Your task to perform on an android device: clear history in the chrome app Image 0: 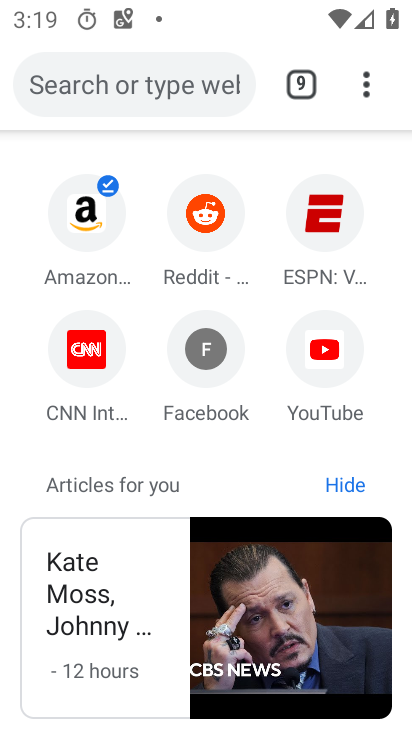
Step 0: click (367, 95)
Your task to perform on an android device: clear history in the chrome app Image 1: 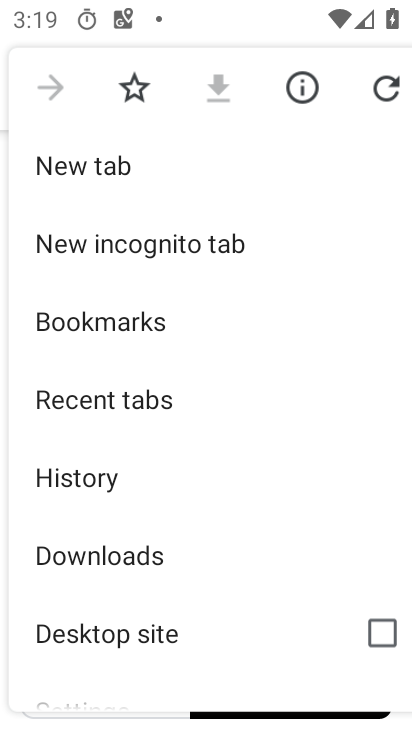
Step 1: click (52, 481)
Your task to perform on an android device: clear history in the chrome app Image 2: 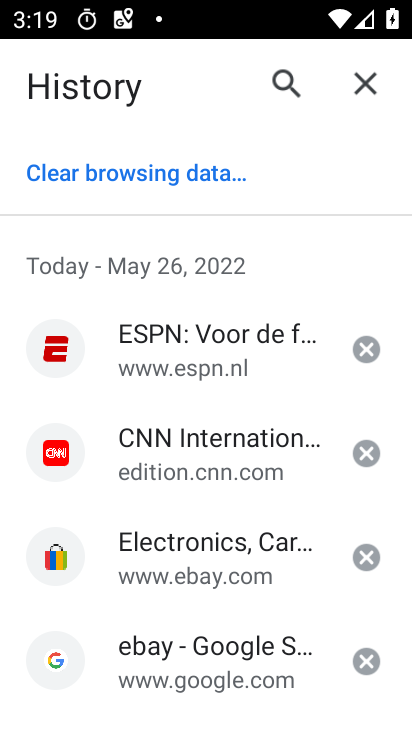
Step 2: click (145, 178)
Your task to perform on an android device: clear history in the chrome app Image 3: 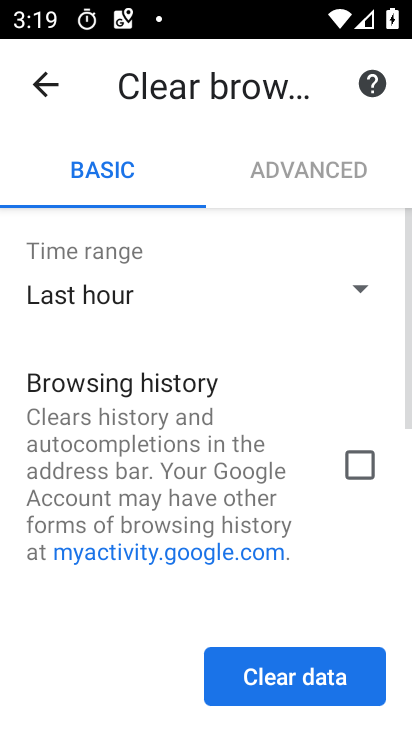
Step 3: drag from (182, 544) to (197, 217)
Your task to perform on an android device: clear history in the chrome app Image 4: 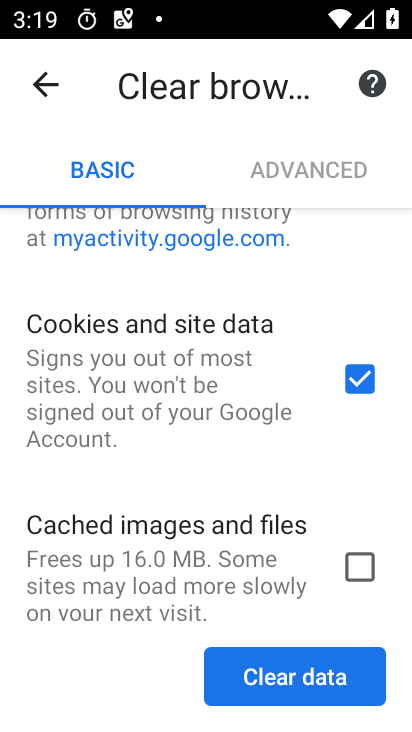
Step 4: click (367, 376)
Your task to perform on an android device: clear history in the chrome app Image 5: 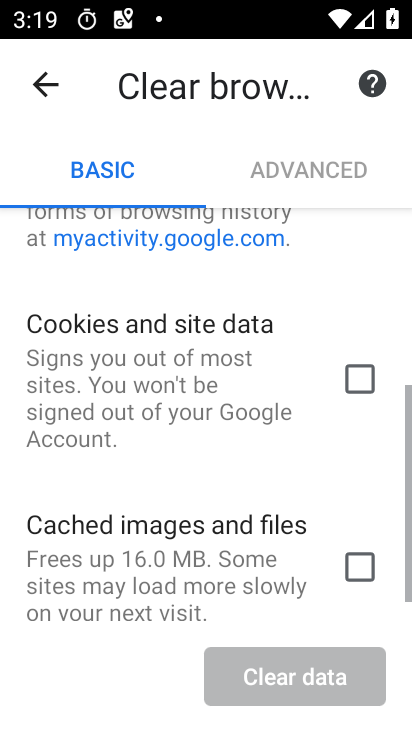
Step 5: drag from (210, 250) to (226, 508)
Your task to perform on an android device: clear history in the chrome app Image 6: 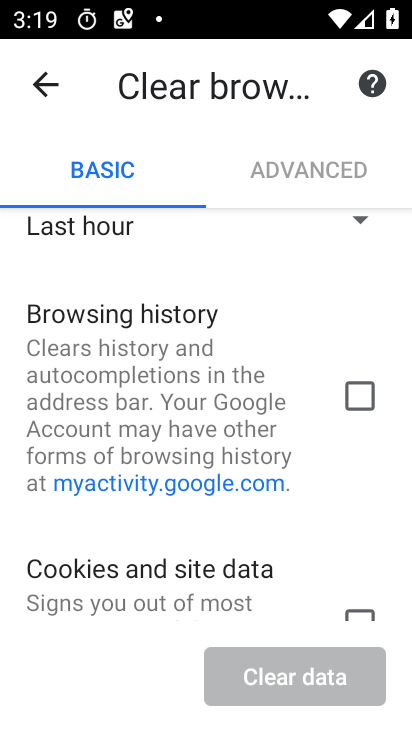
Step 6: click (361, 392)
Your task to perform on an android device: clear history in the chrome app Image 7: 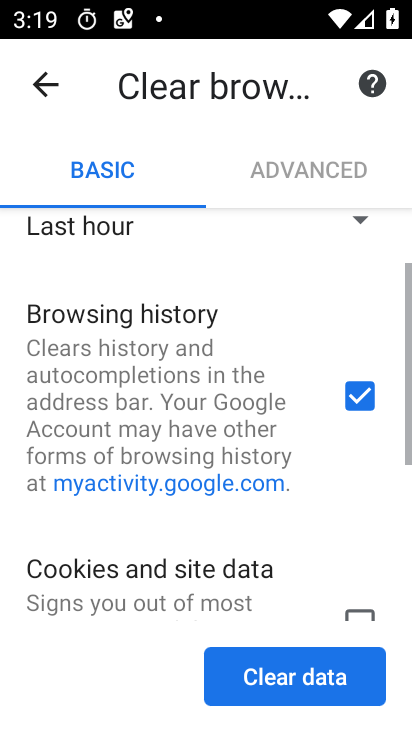
Step 7: click (305, 679)
Your task to perform on an android device: clear history in the chrome app Image 8: 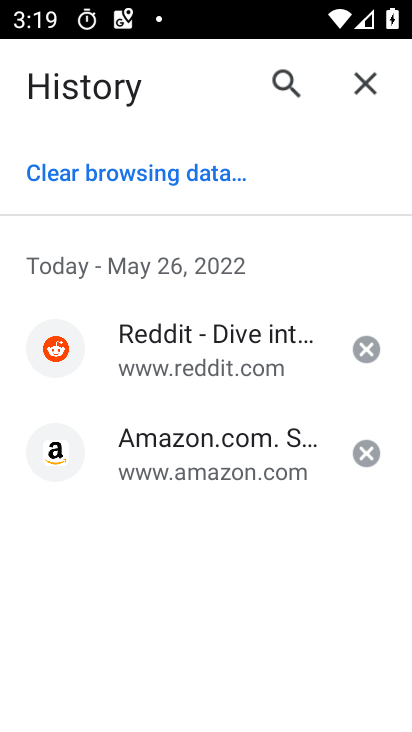
Step 8: task complete